Your task to perform on an android device: turn on improve location accuracy Image 0: 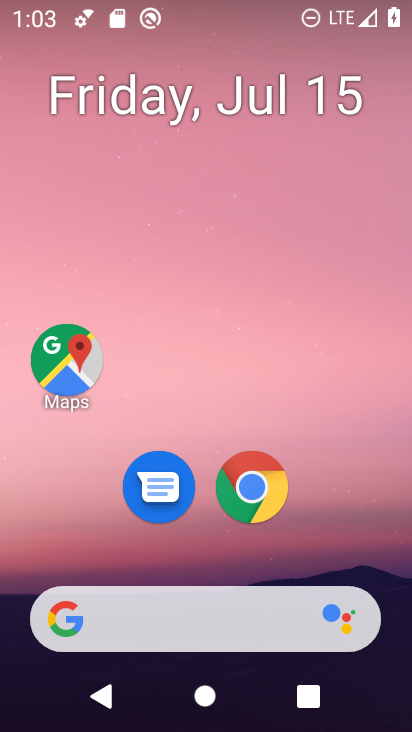
Step 0: drag from (252, 597) to (261, 10)
Your task to perform on an android device: turn on improve location accuracy Image 1: 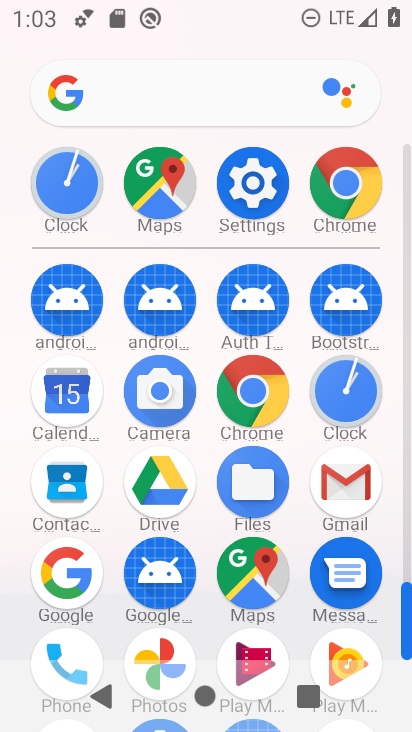
Step 1: click (266, 186)
Your task to perform on an android device: turn on improve location accuracy Image 2: 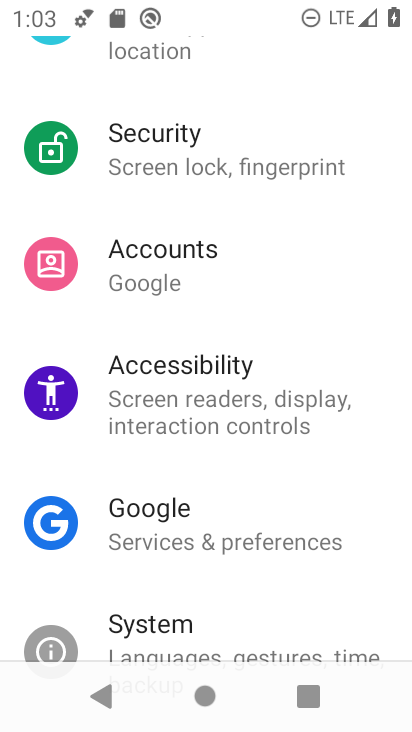
Step 2: drag from (266, 186) to (209, 677)
Your task to perform on an android device: turn on improve location accuracy Image 3: 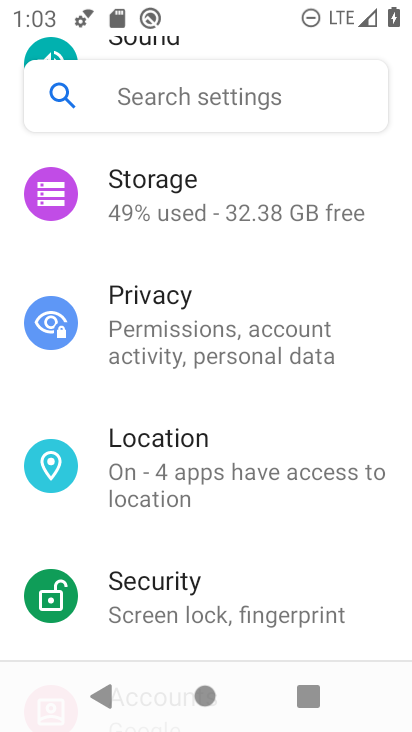
Step 3: drag from (203, 201) to (178, 546)
Your task to perform on an android device: turn on improve location accuracy Image 4: 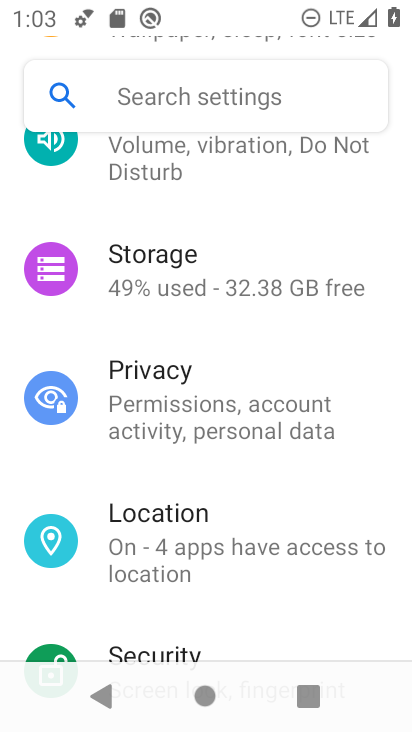
Step 4: drag from (258, 187) to (212, 724)
Your task to perform on an android device: turn on improve location accuracy Image 5: 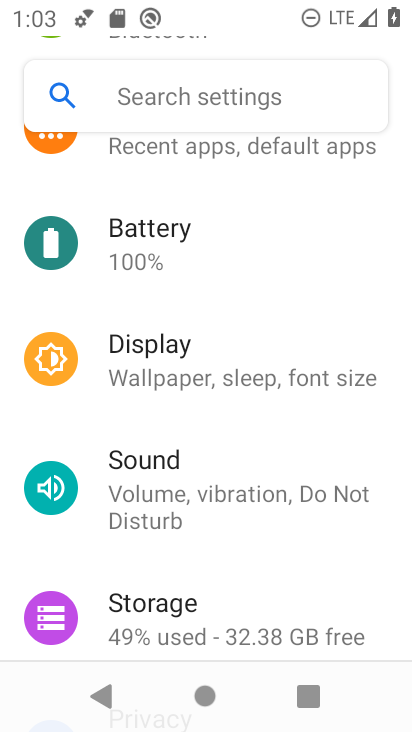
Step 5: drag from (315, 367) to (307, 672)
Your task to perform on an android device: turn on improve location accuracy Image 6: 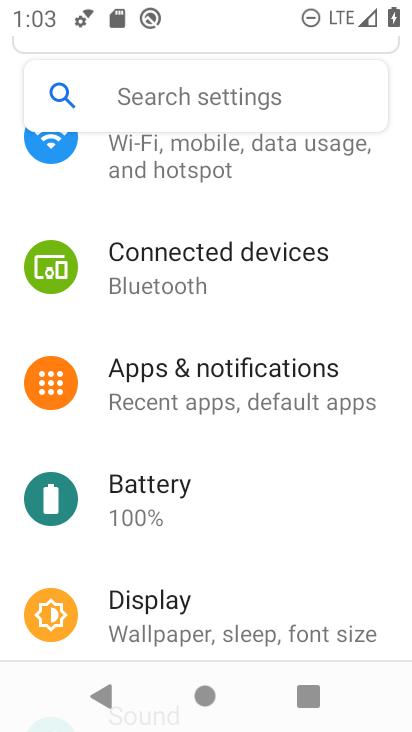
Step 6: click (254, 366)
Your task to perform on an android device: turn on improve location accuracy Image 7: 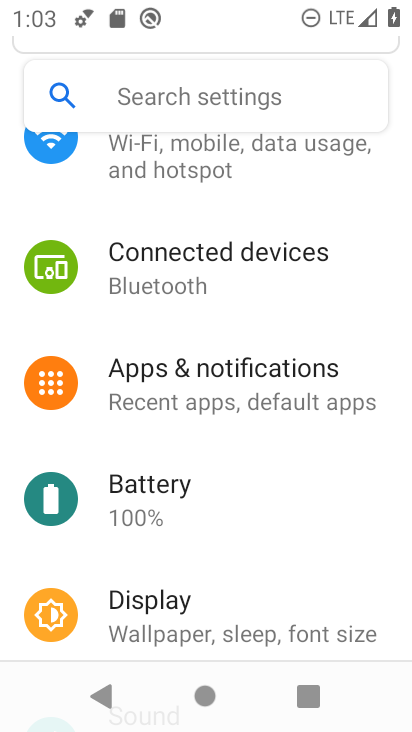
Step 7: drag from (244, 566) to (309, 208)
Your task to perform on an android device: turn on improve location accuracy Image 8: 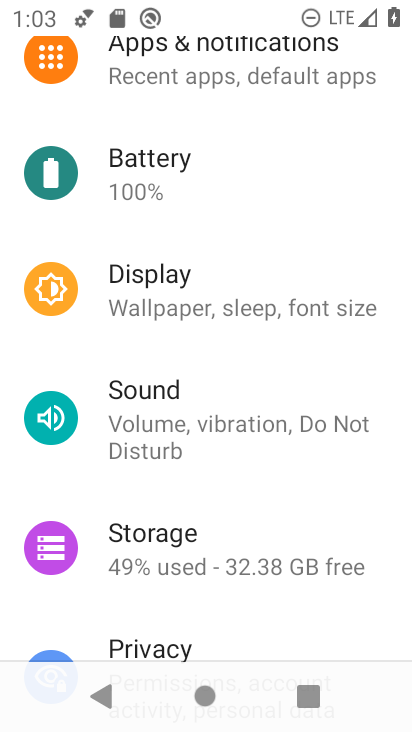
Step 8: drag from (211, 563) to (306, 67)
Your task to perform on an android device: turn on improve location accuracy Image 9: 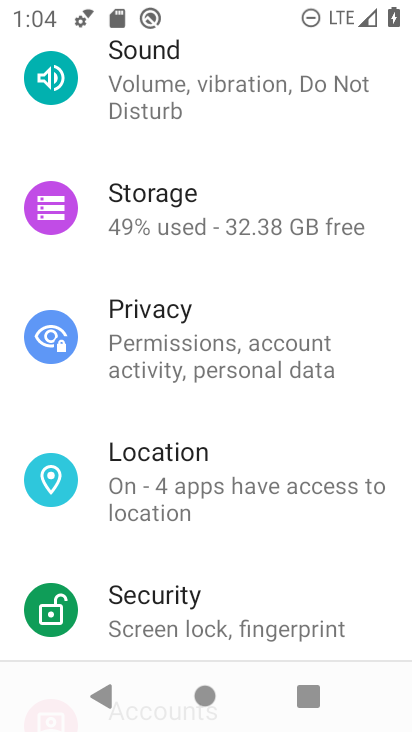
Step 9: click (204, 481)
Your task to perform on an android device: turn on improve location accuracy Image 10: 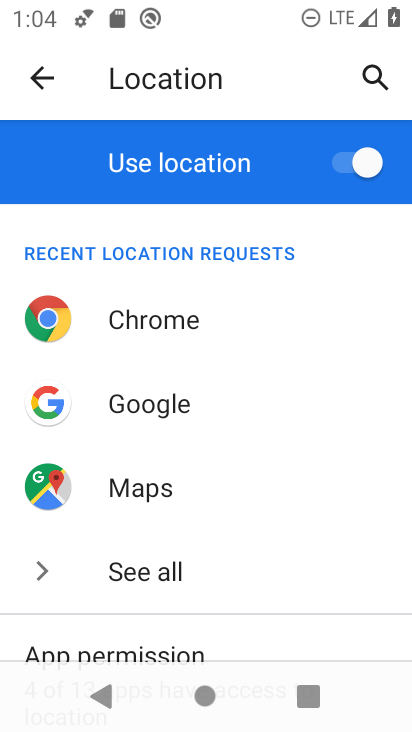
Step 10: drag from (258, 601) to (281, 306)
Your task to perform on an android device: turn on improve location accuracy Image 11: 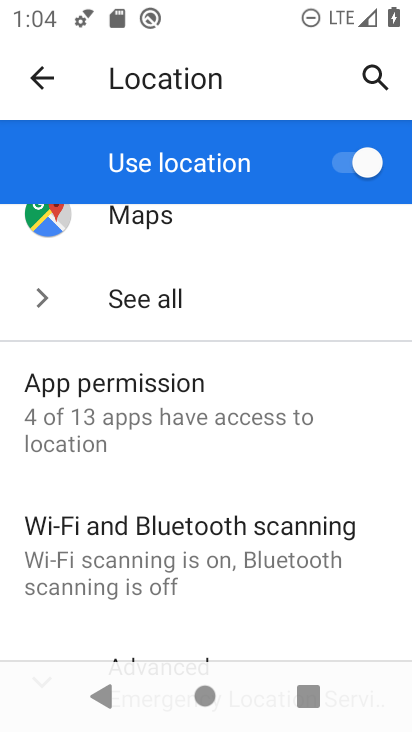
Step 11: drag from (276, 581) to (286, 231)
Your task to perform on an android device: turn on improve location accuracy Image 12: 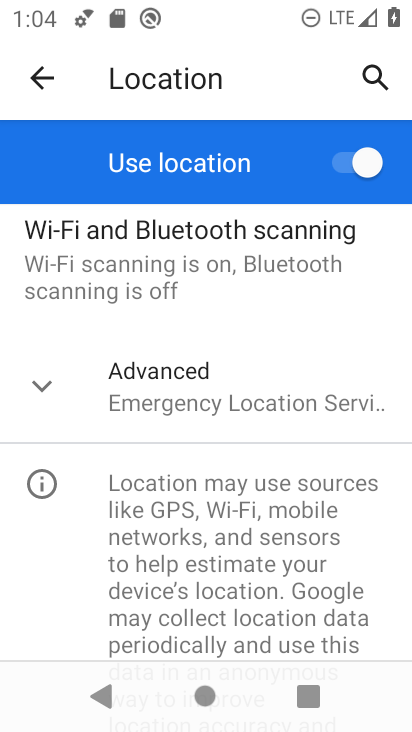
Step 12: click (267, 392)
Your task to perform on an android device: turn on improve location accuracy Image 13: 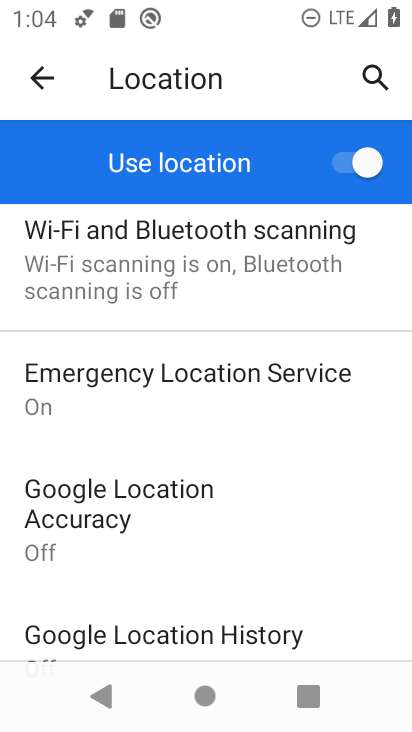
Step 13: click (186, 511)
Your task to perform on an android device: turn on improve location accuracy Image 14: 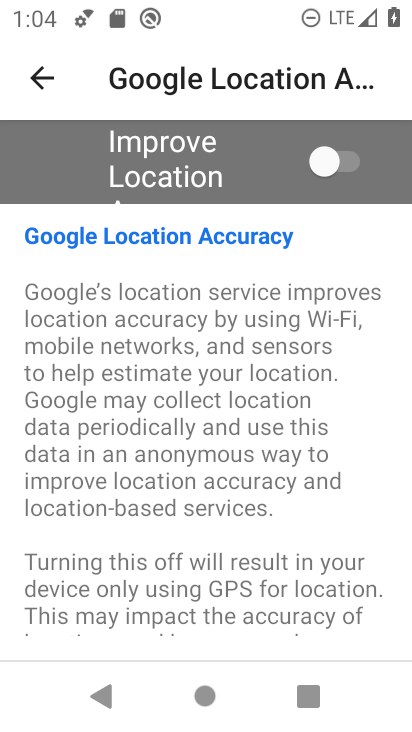
Step 14: click (355, 167)
Your task to perform on an android device: turn on improve location accuracy Image 15: 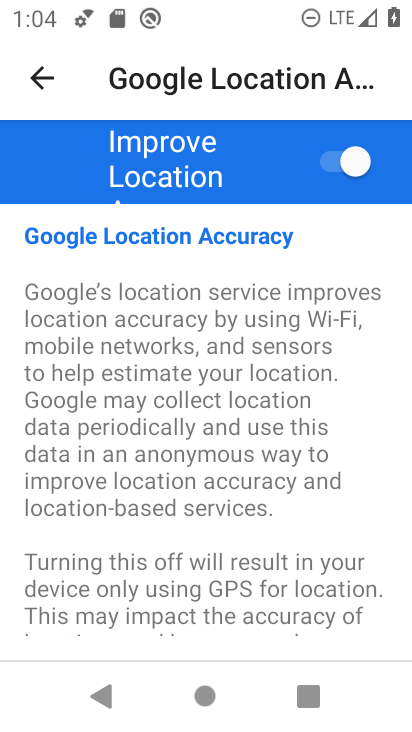
Step 15: task complete